Your task to perform on an android device: check android version Image 0: 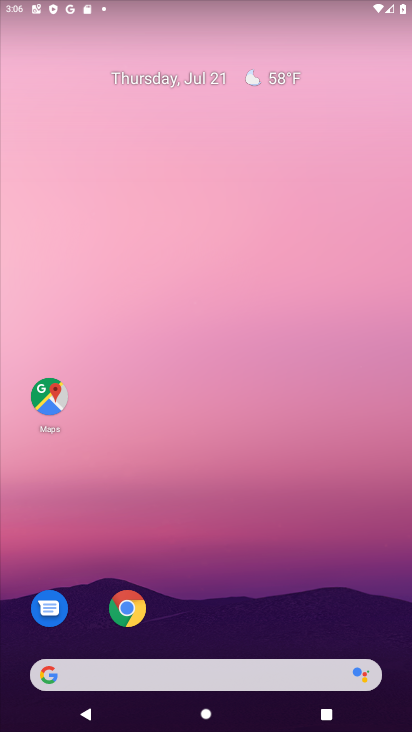
Step 0: drag from (207, 645) to (249, 94)
Your task to perform on an android device: check android version Image 1: 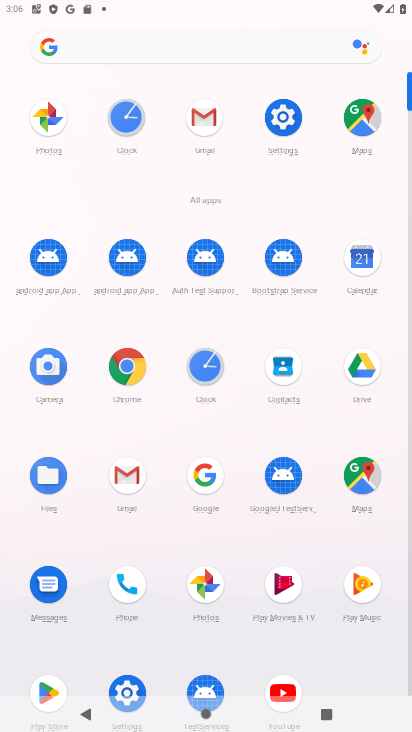
Step 1: click (279, 113)
Your task to perform on an android device: check android version Image 2: 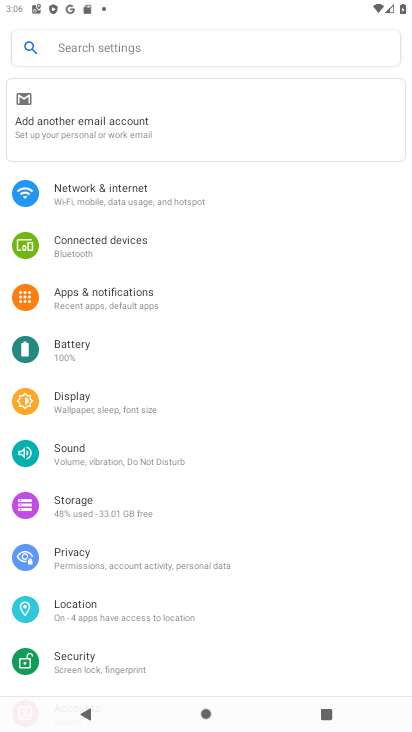
Step 2: drag from (153, 654) to (208, 155)
Your task to perform on an android device: check android version Image 3: 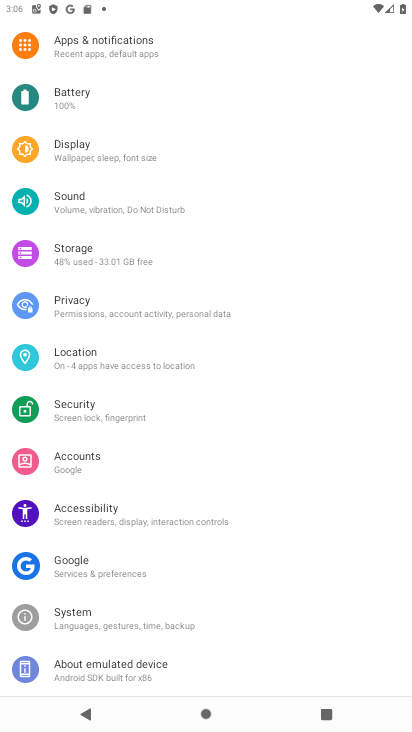
Step 3: click (168, 668)
Your task to perform on an android device: check android version Image 4: 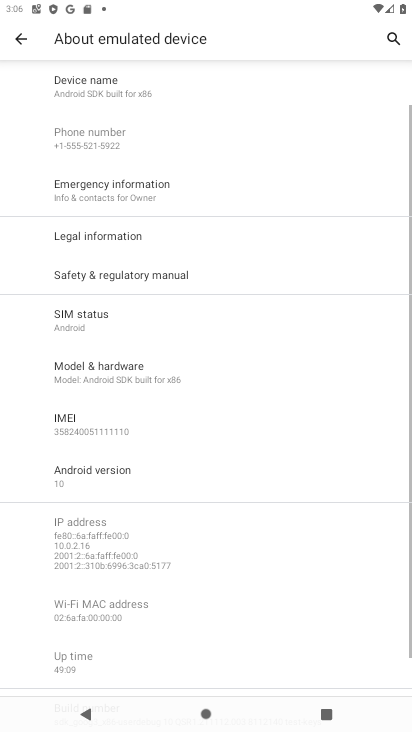
Step 4: click (125, 480)
Your task to perform on an android device: check android version Image 5: 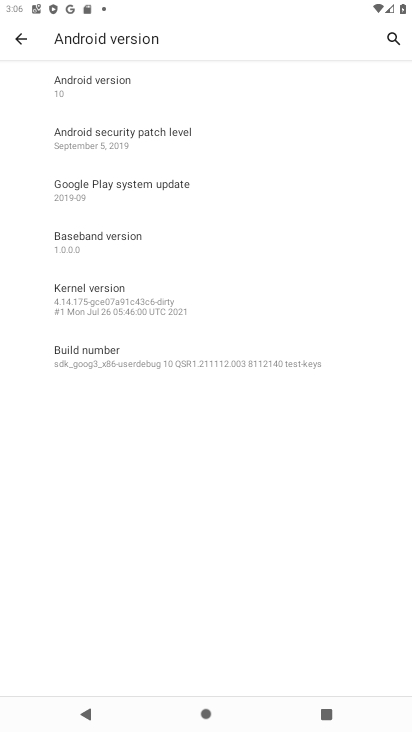
Step 5: task complete